Your task to perform on an android device: uninstall "ColorNote Notepad Notes" Image 0: 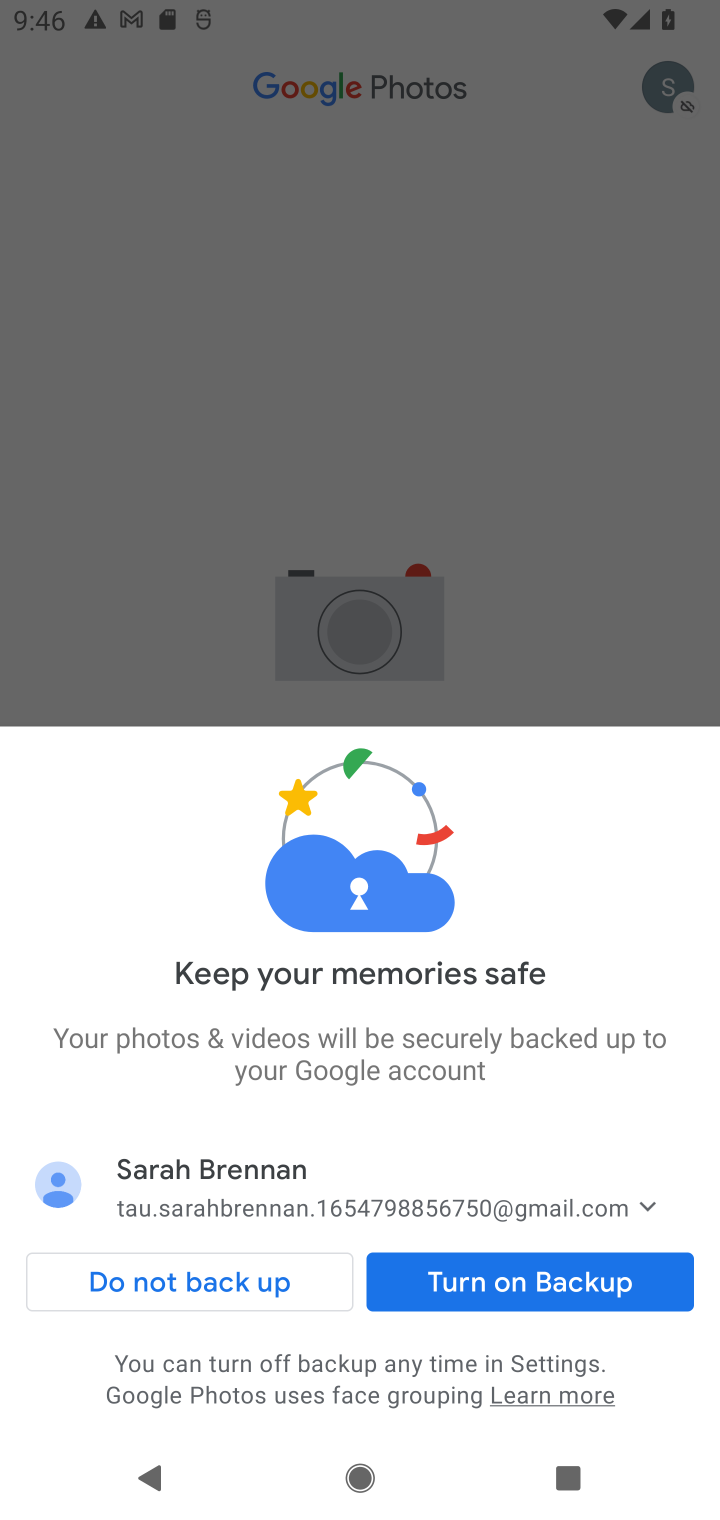
Step 0: press home button
Your task to perform on an android device: uninstall "ColorNote Notepad Notes" Image 1: 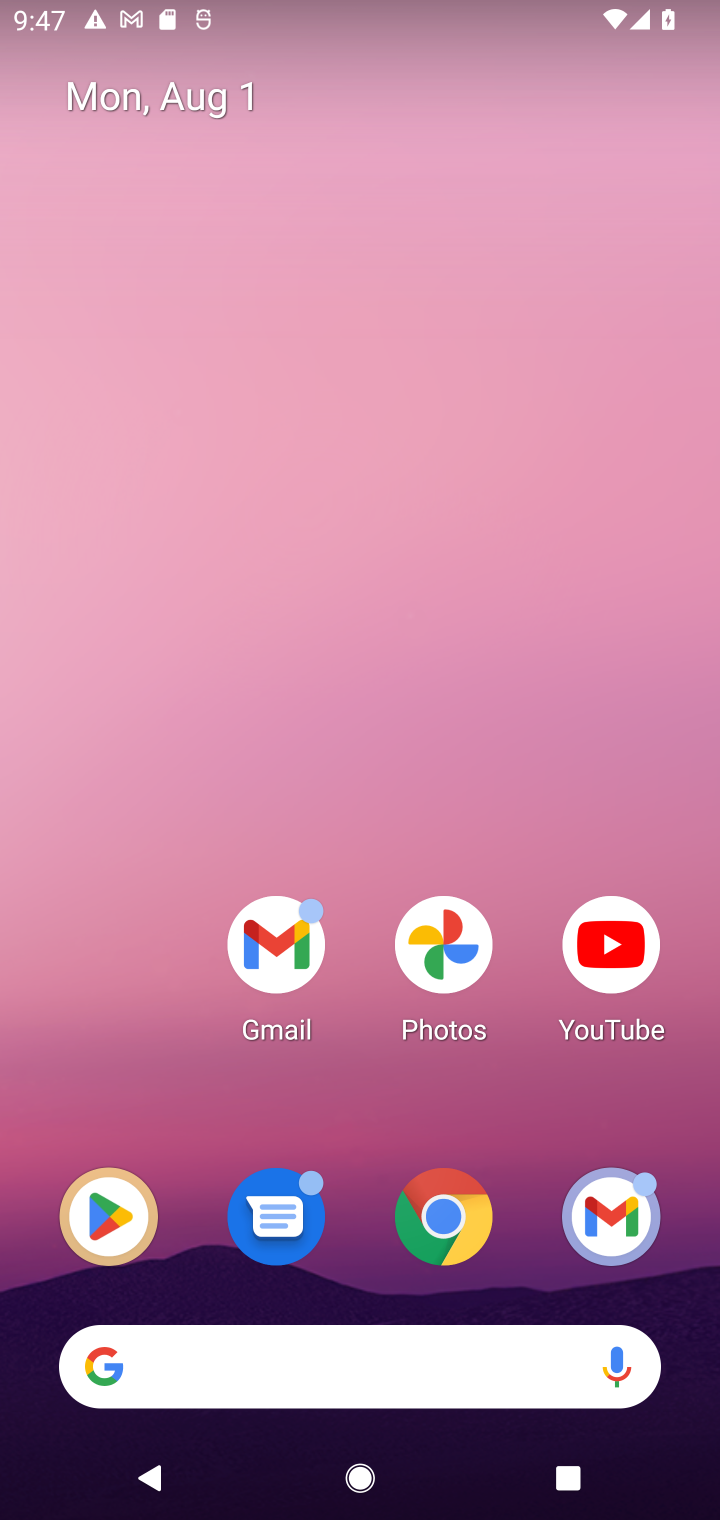
Step 1: click (109, 1209)
Your task to perform on an android device: uninstall "ColorNote Notepad Notes" Image 2: 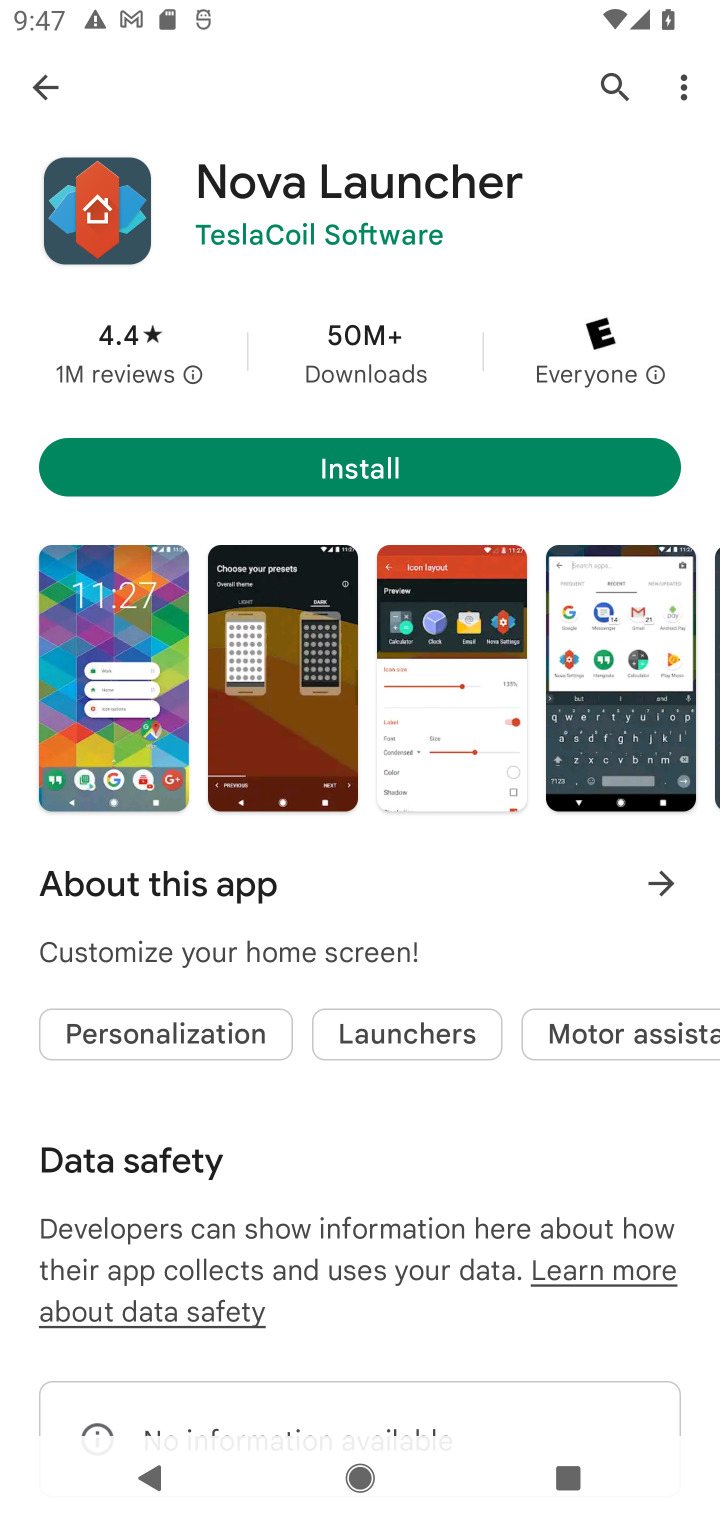
Step 2: click (611, 90)
Your task to perform on an android device: uninstall "ColorNote Notepad Notes" Image 3: 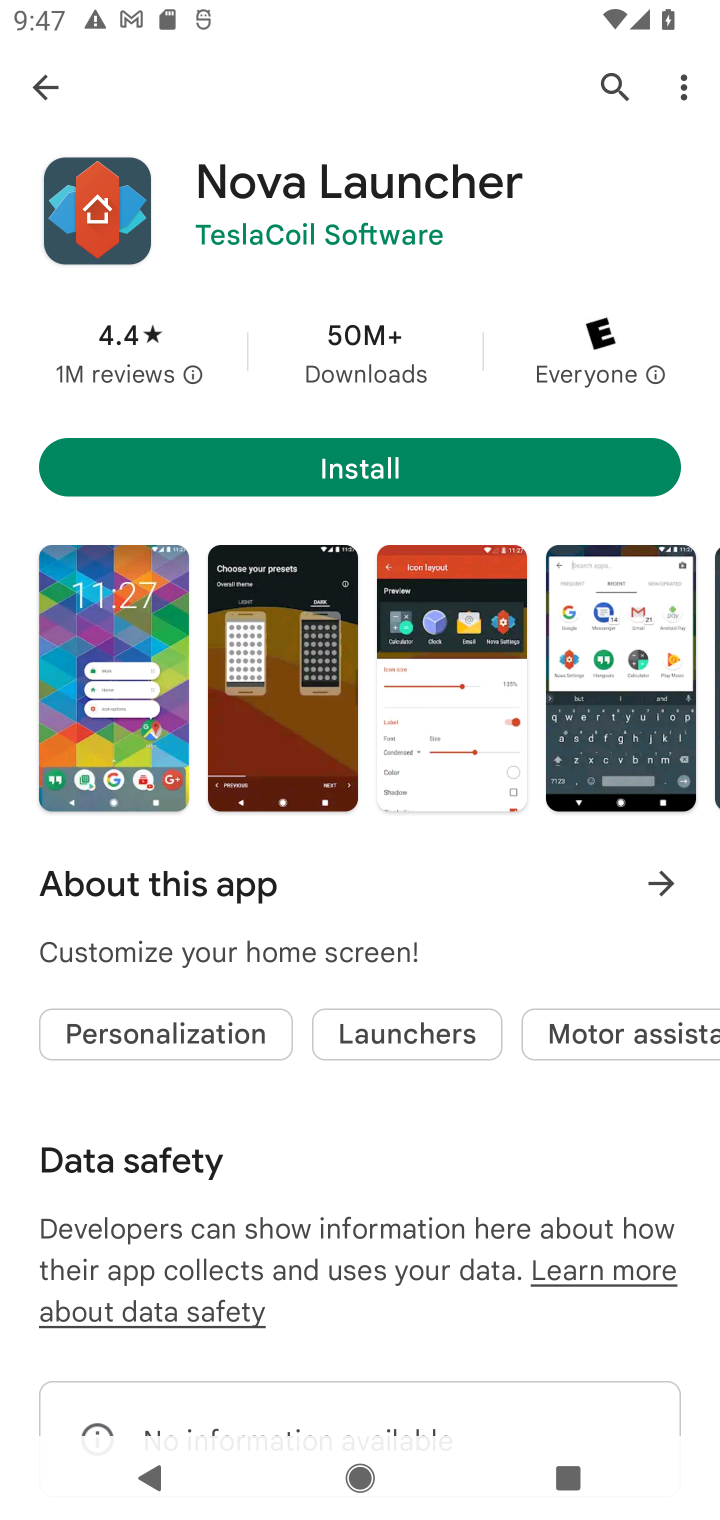
Step 3: click (611, 90)
Your task to perform on an android device: uninstall "ColorNote Notepad Notes" Image 4: 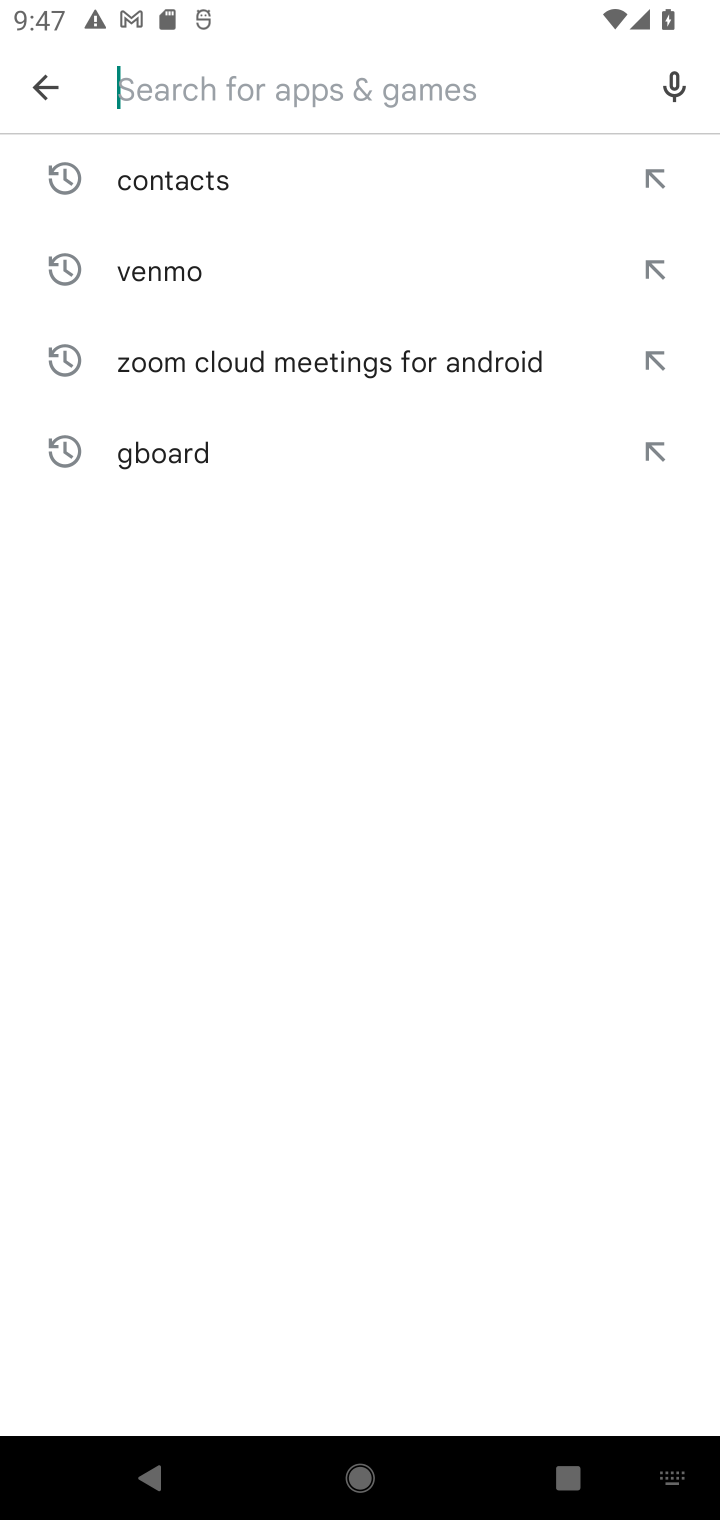
Step 4: type "ColorNote Notepad Notes"
Your task to perform on an android device: uninstall "ColorNote Notepad Notes" Image 5: 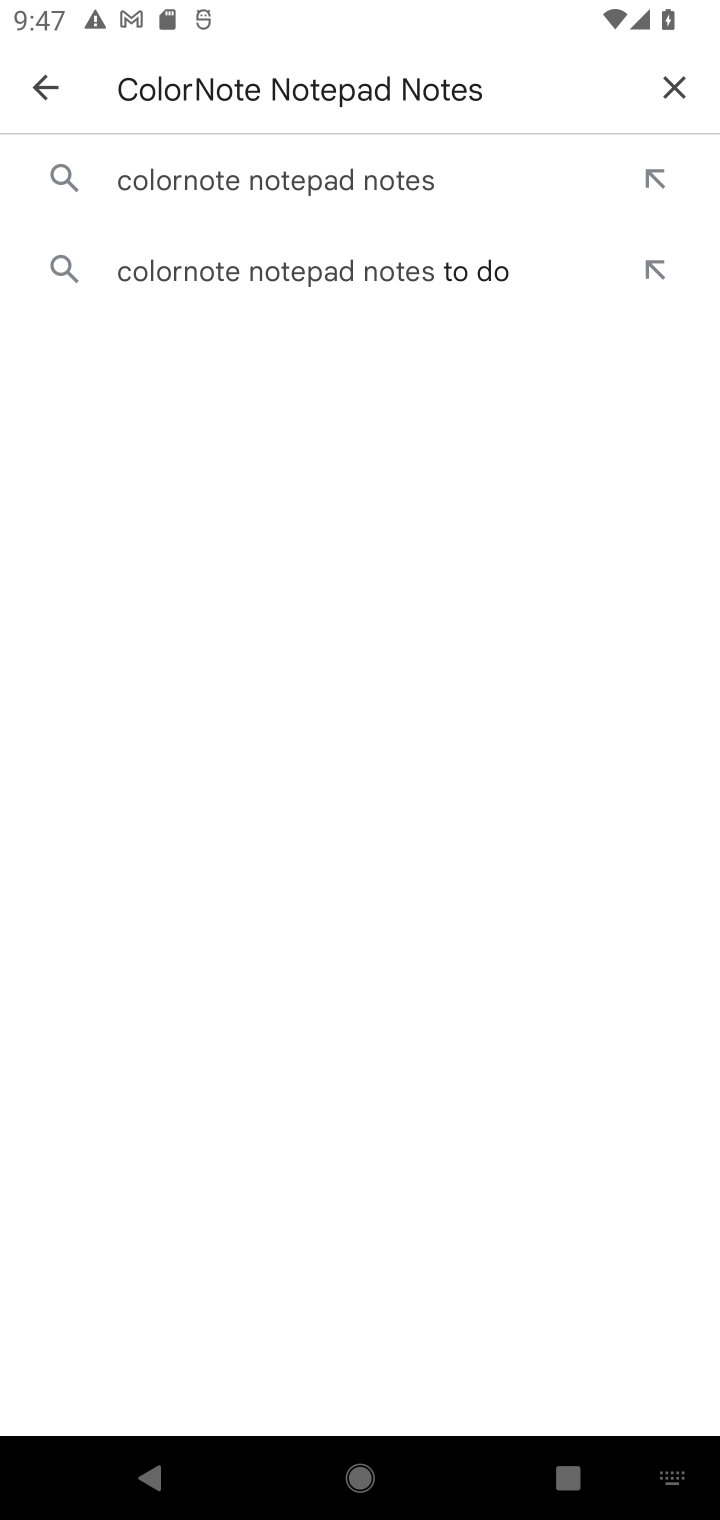
Step 5: click (173, 195)
Your task to perform on an android device: uninstall "ColorNote Notepad Notes" Image 6: 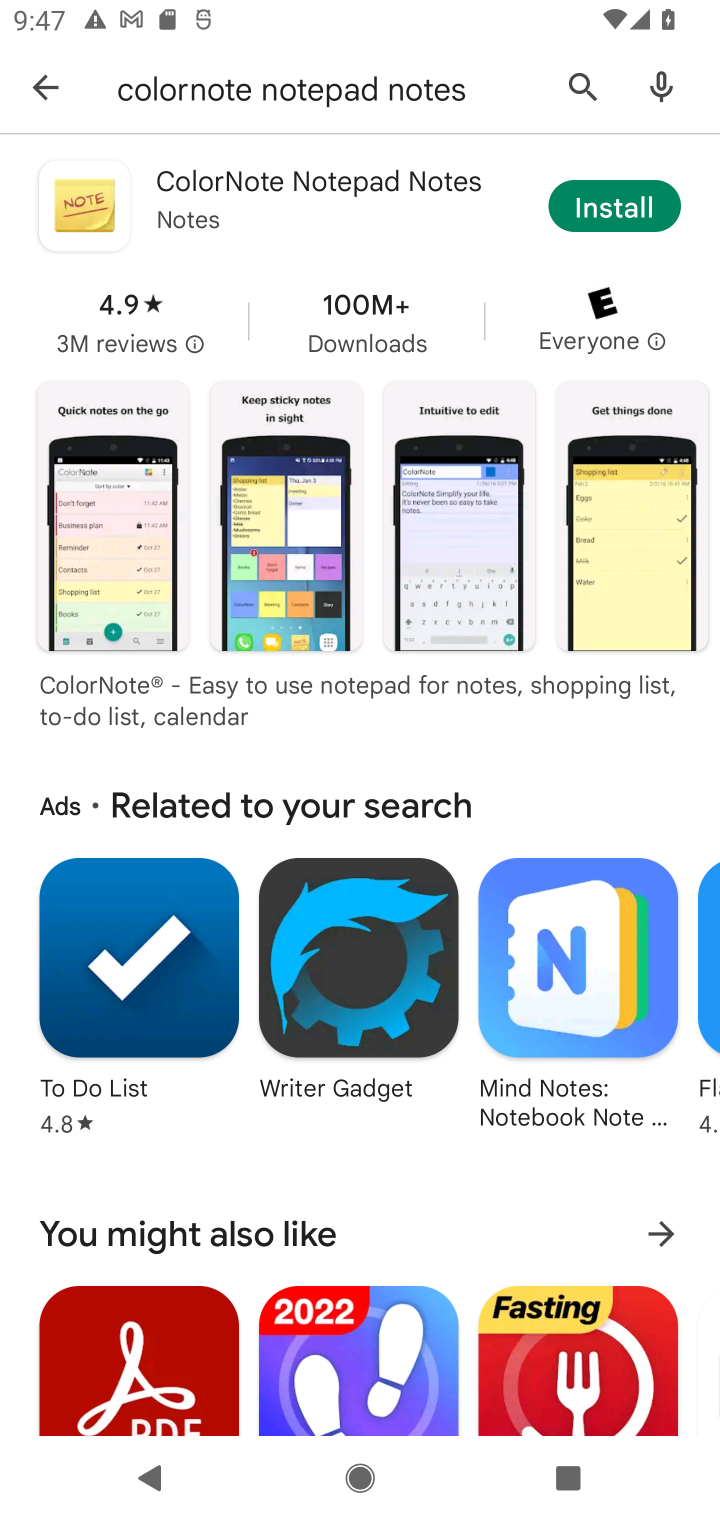
Step 6: task complete